Your task to perform on an android device: check android version Image 0: 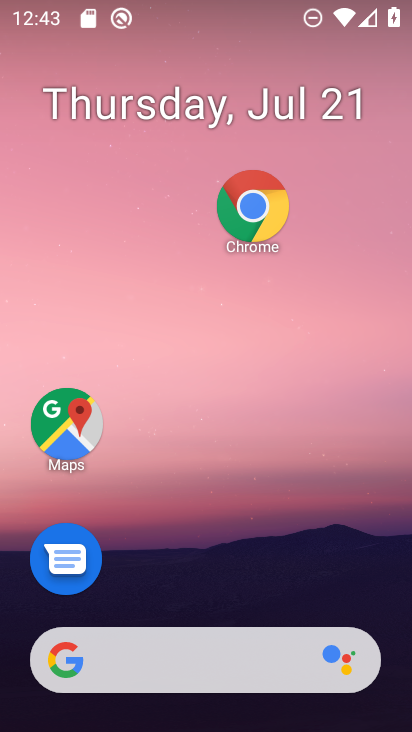
Step 0: drag from (239, 640) to (253, 230)
Your task to perform on an android device: check android version Image 1: 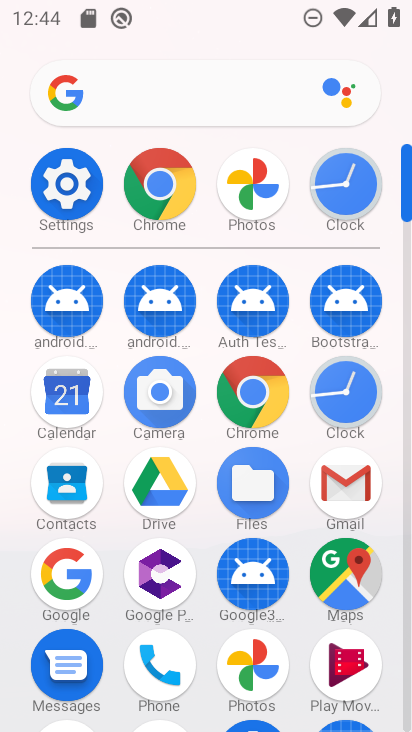
Step 1: click (78, 166)
Your task to perform on an android device: check android version Image 2: 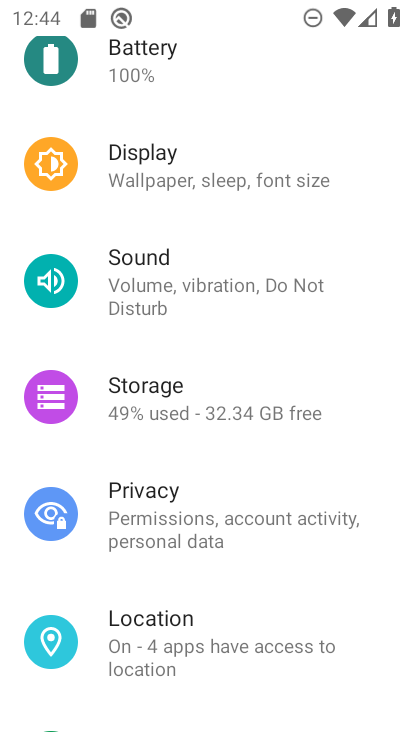
Step 2: drag from (194, 585) to (262, 207)
Your task to perform on an android device: check android version Image 3: 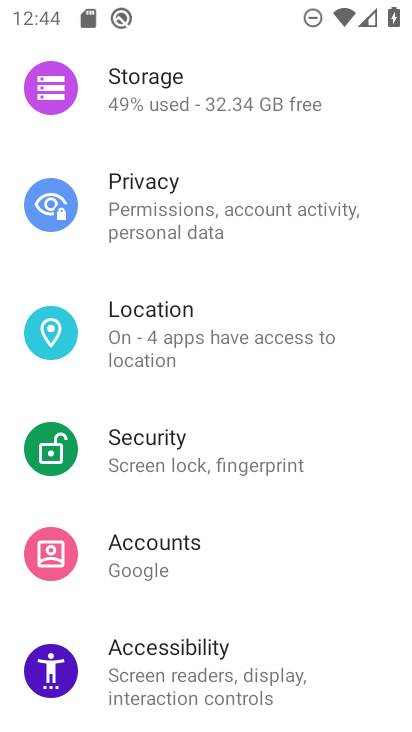
Step 3: drag from (212, 515) to (284, 162)
Your task to perform on an android device: check android version Image 4: 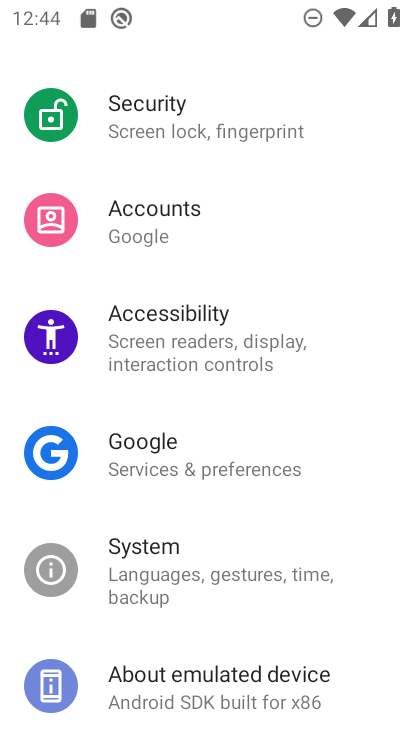
Step 4: click (205, 692)
Your task to perform on an android device: check android version Image 5: 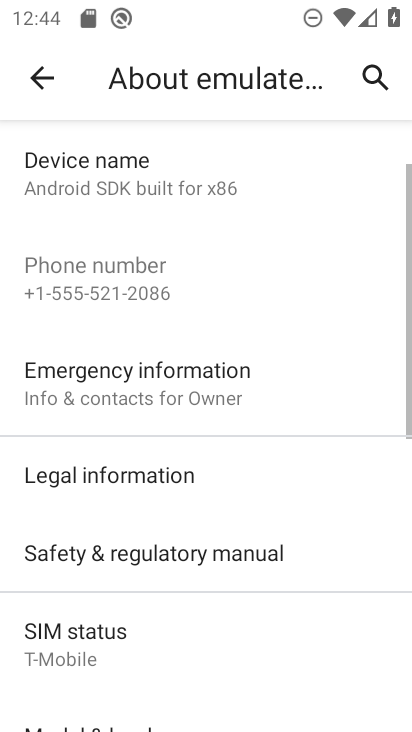
Step 5: drag from (178, 553) to (234, 113)
Your task to perform on an android device: check android version Image 6: 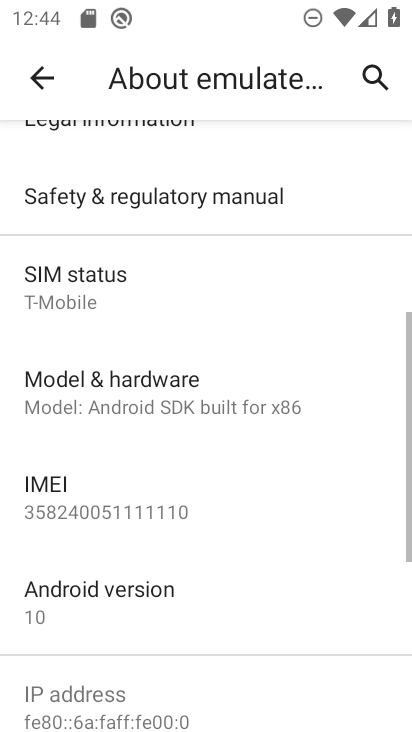
Step 6: click (129, 619)
Your task to perform on an android device: check android version Image 7: 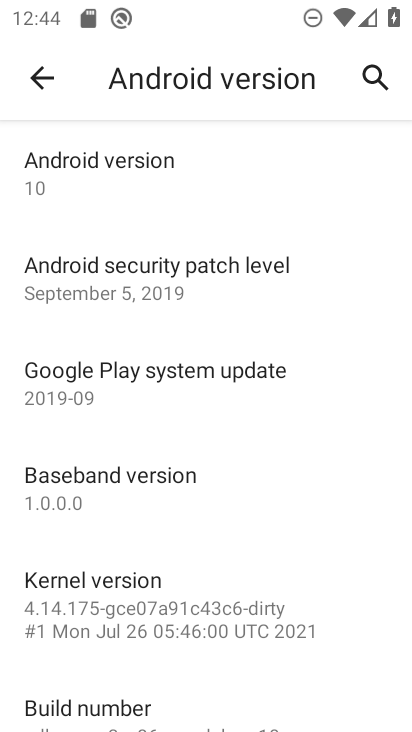
Step 7: task complete